Your task to perform on an android device: Go to Yahoo.com Image 0: 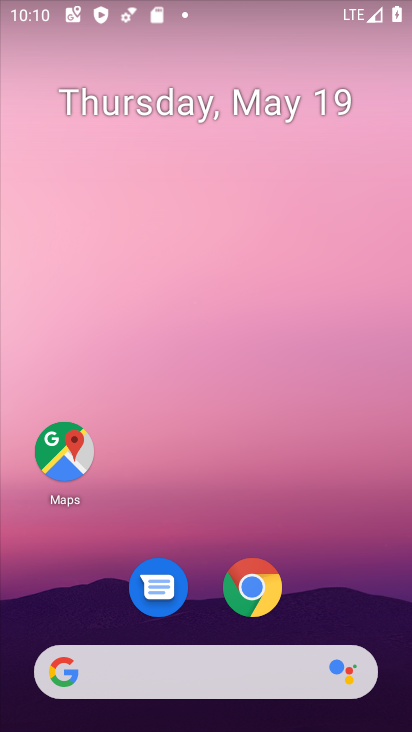
Step 0: click (254, 586)
Your task to perform on an android device: Go to Yahoo.com Image 1: 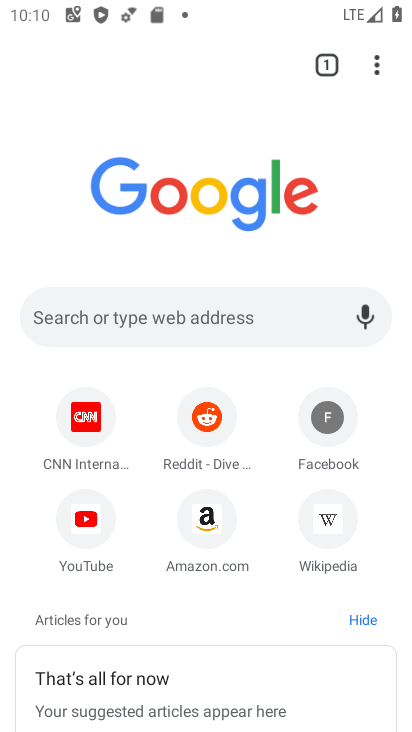
Step 1: click (159, 315)
Your task to perform on an android device: Go to Yahoo.com Image 2: 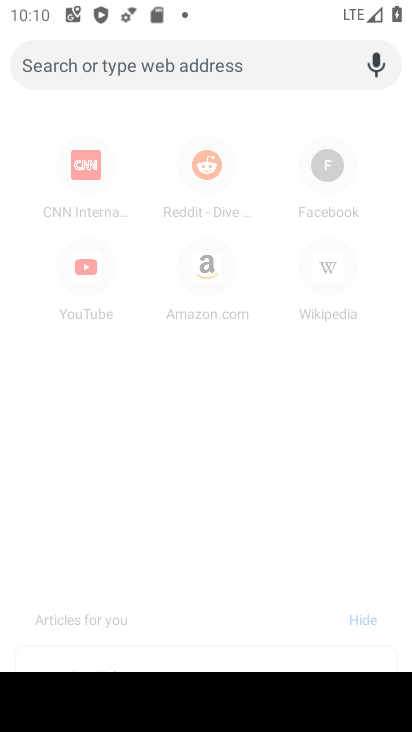
Step 2: type "yahoo"
Your task to perform on an android device: Go to Yahoo.com Image 3: 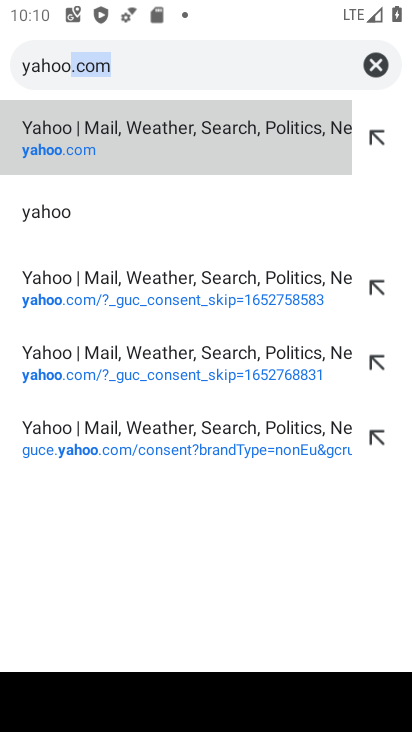
Step 3: click (171, 124)
Your task to perform on an android device: Go to Yahoo.com Image 4: 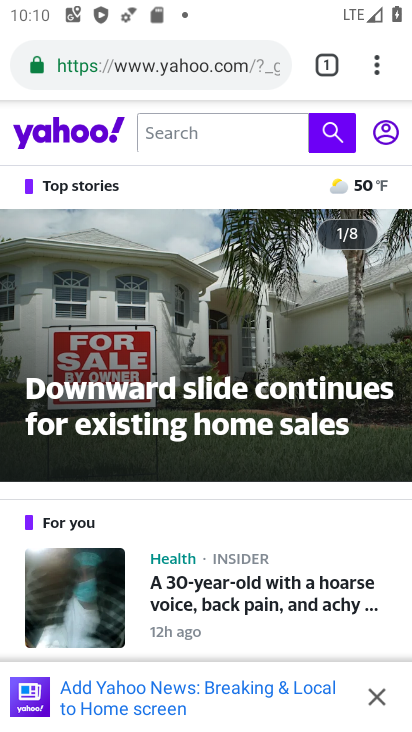
Step 4: task complete